Your task to perform on an android device: Turn off the flashlight Image 0: 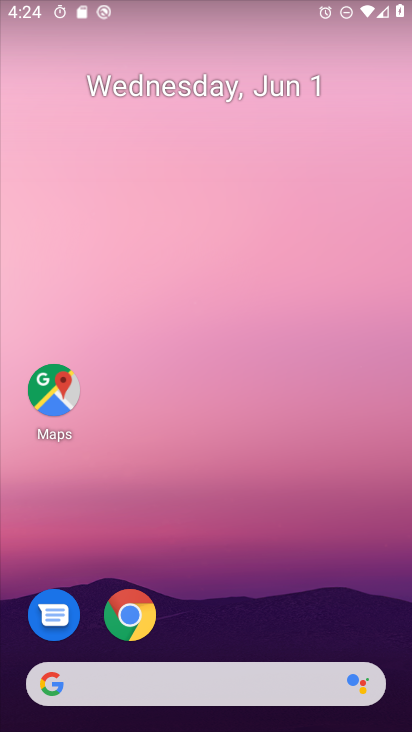
Step 0: drag from (266, 620) to (243, 88)
Your task to perform on an android device: Turn off the flashlight Image 1: 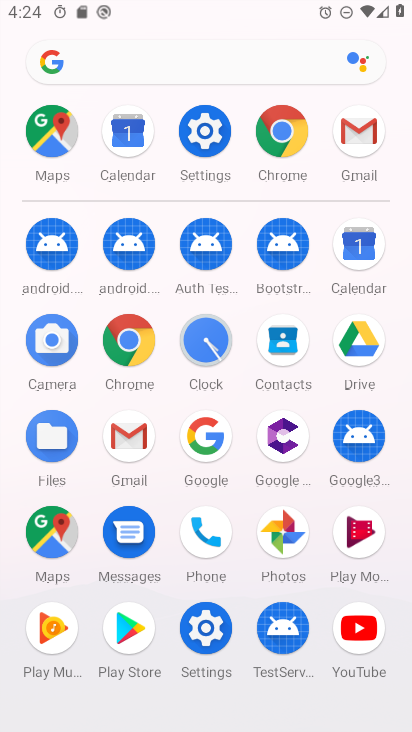
Step 1: task complete